Your task to perform on an android device: delete the emails in spam in the gmail app Image 0: 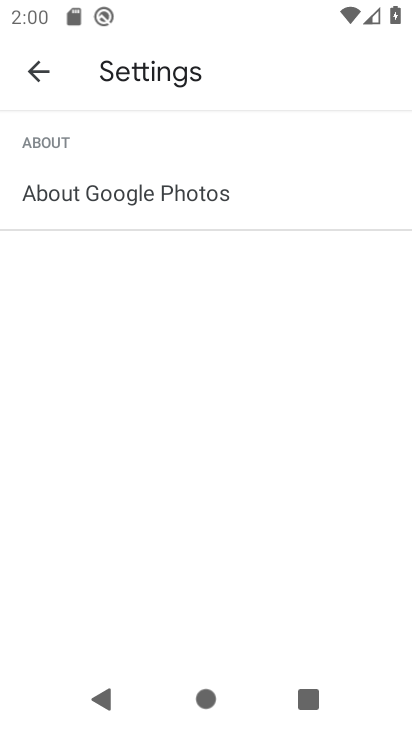
Step 0: press home button
Your task to perform on an android device: delete the emails in spam in the gmail app Image 1: 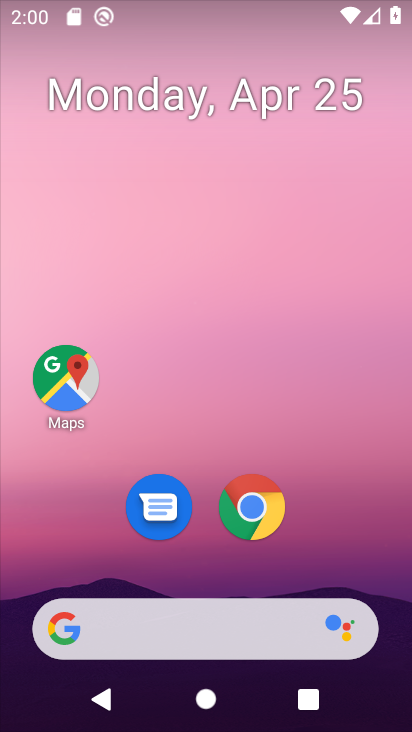
Step 1: drag from (176, 526) to (285, 187)
Your task to perform on an android device: delete the emails in spam in the gmail app Image 2: 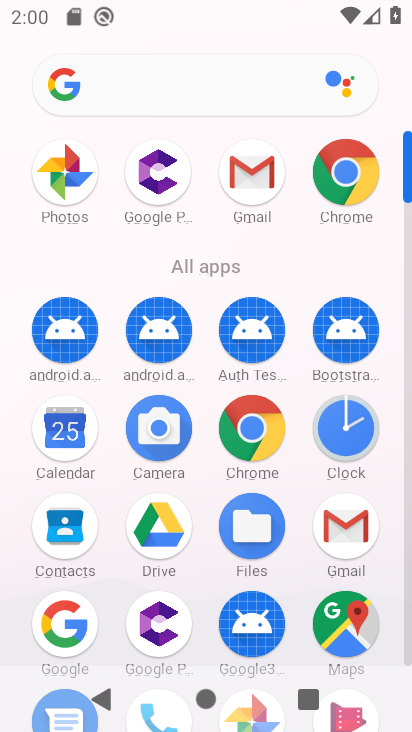
Step 2: click (344, 529)
Your task to perform on an android device: delete the emails in spam in the gmail app Image 3: 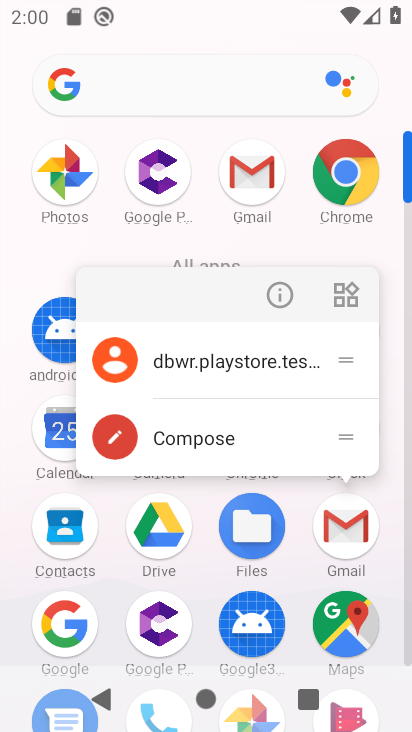
Step 3: click (335, 542)
Your task to perform on an android device: delete the emails in spam in the gmail app Image 4: 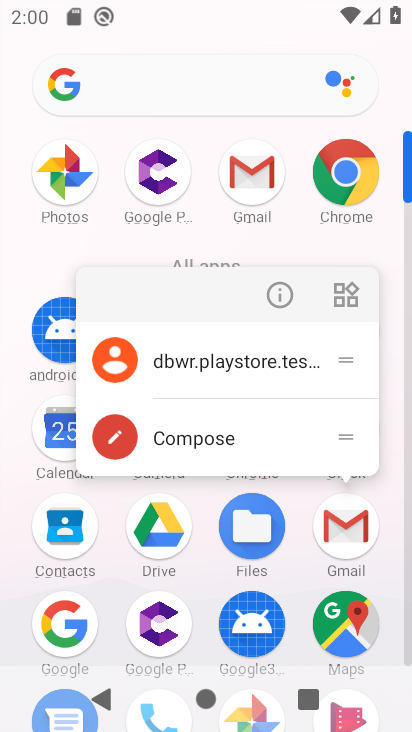
Step 4: click (347, 534)
Your task to perform on an android device: delete the emails in spam in the gmail app Image 5: 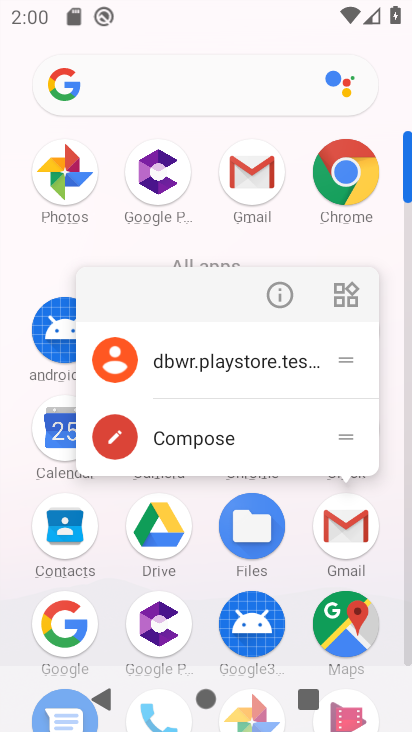
Step 5: click (348, 531)
Your task to perform on an android device: delete the emails in spam in the gmail app Image 6: 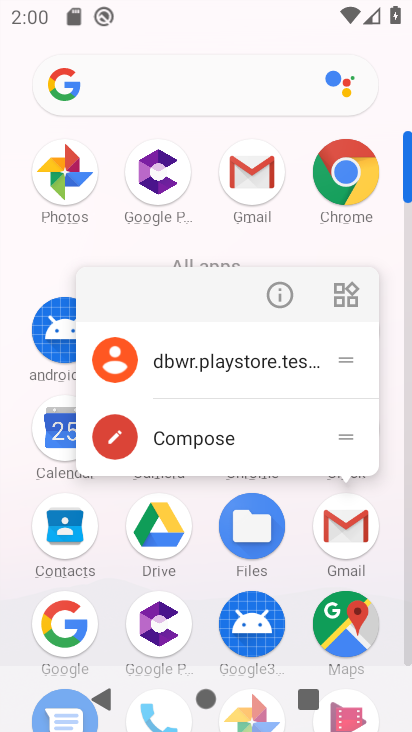
Step 6: click (340, 539)
Your task to perform on an android device: delete the emails in spam in the gmail app Image 7: 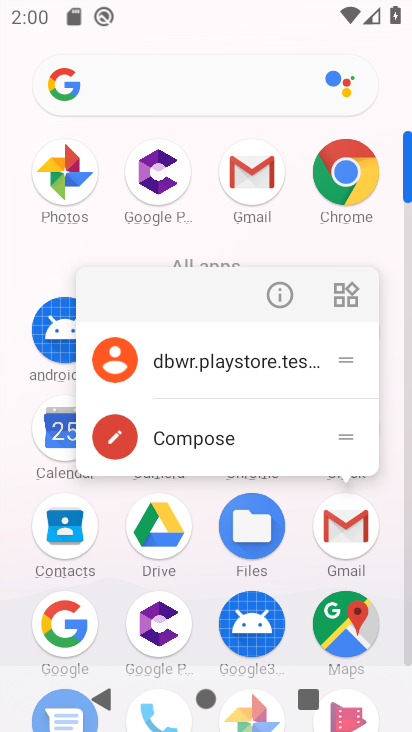
Step 7: click (350, 525)
Your task to perform on an android device: delete the emails in spam in the gmail app Image 8: 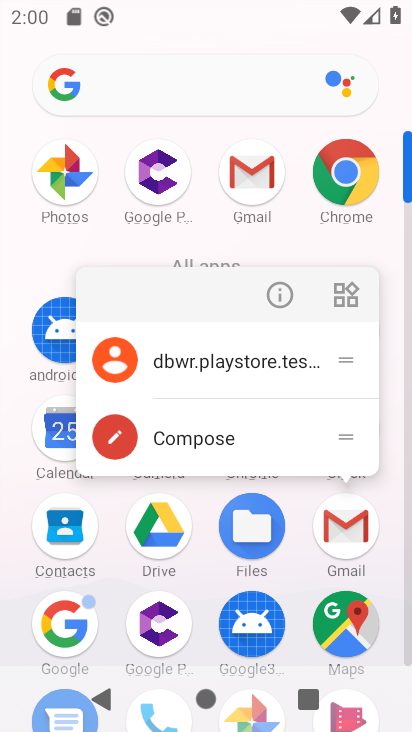
Step 8: click (348, 528)
Your task to perform on an android device: delete the emails in spam in the gmail app Image 9: 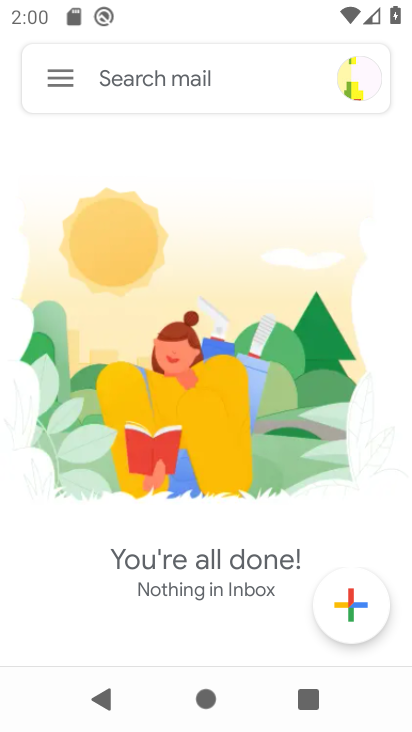
Step 9: click (59, 81)
Your task to perform on an android device: delete the emails in spam in the gmail app Image 10: 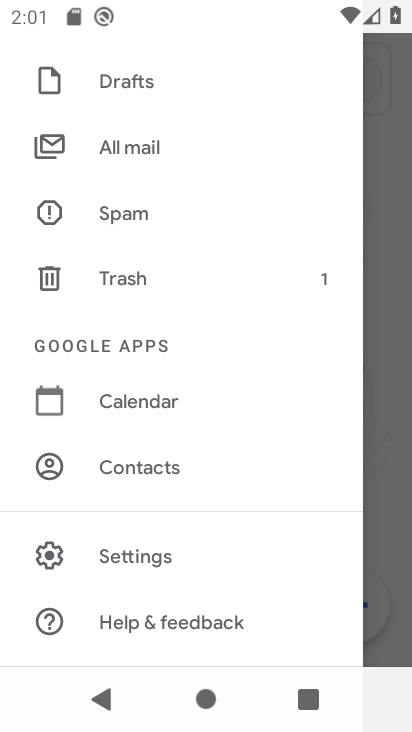
Step 10: click (142, 213)
Your task to perform on an android device: delete the emails in spam in the gmail app Image 11: 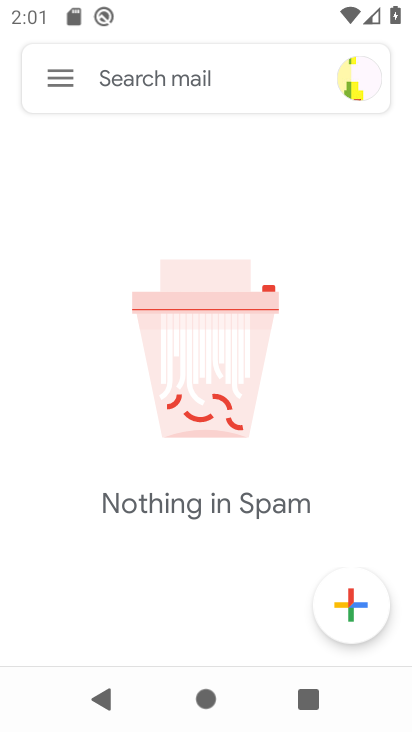
Step 11: task complete